Your task to perform on an android device: Is it going to rain today? Image 0: 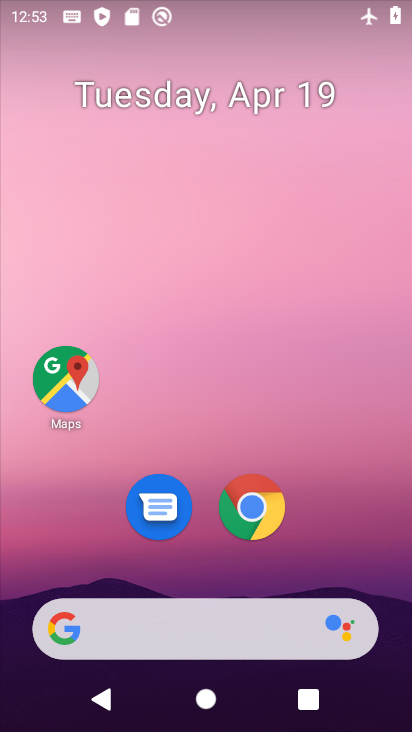
Step 0: drag from (3, 280) to (410, 268)
Your task to perform on an android device: Is it going to rain today? Image 1: 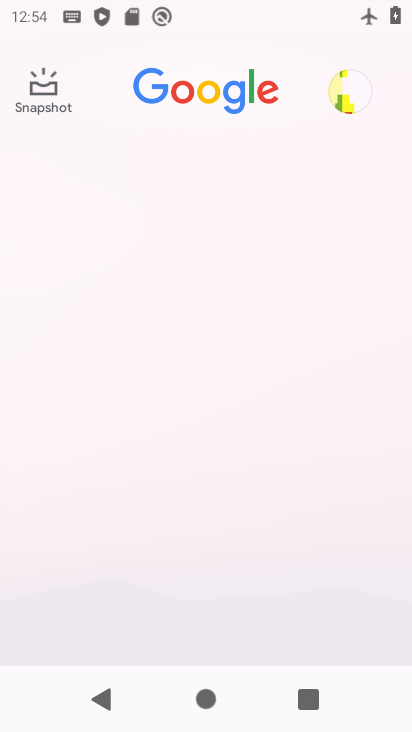
Step 1: task complete